Your task to perform on an android device: Open internet settings Image 0: 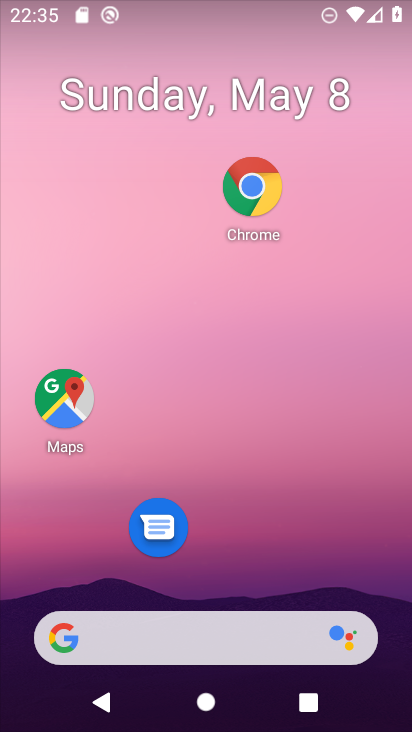
Step 0: click (346, 229)
Your task to perform on an android device: Open internet settings Image 1: 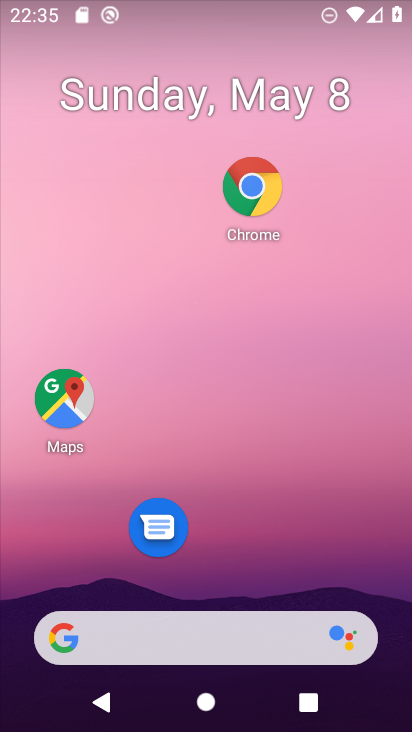
Step 1: drag from (238, 535) to (304, 206)
Your task to perform on an android device: Open internet settings Image 2: 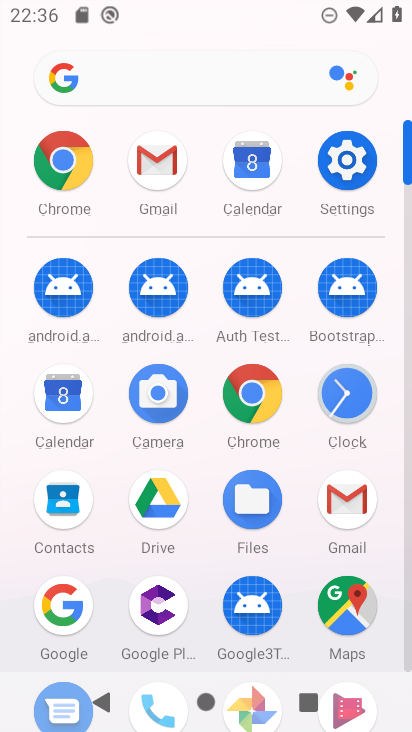
Step 2: click (338, 152)
Your task to perform on an android device: Open internet settings Image 3: 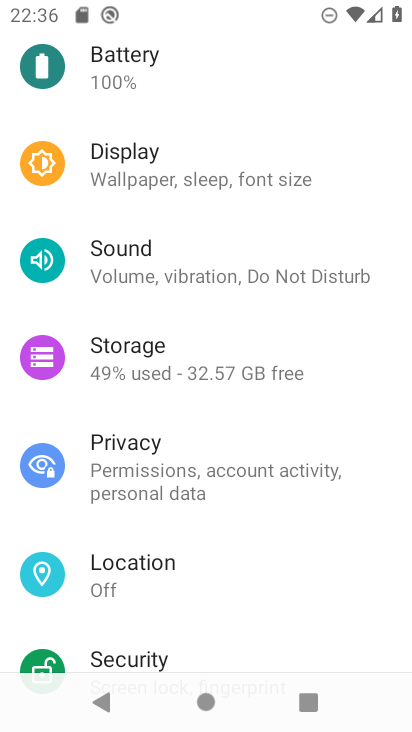
Step 3: drag from (203, 84) to (138, 620)
Your task to perform on an android device: Open internet settings Image 4: 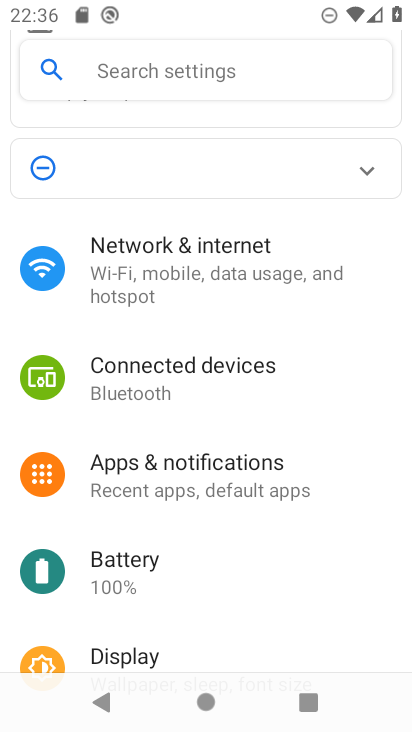
Step 4: click (210, 258)
Your task to perform on an android device: Open internet settings Image 5: 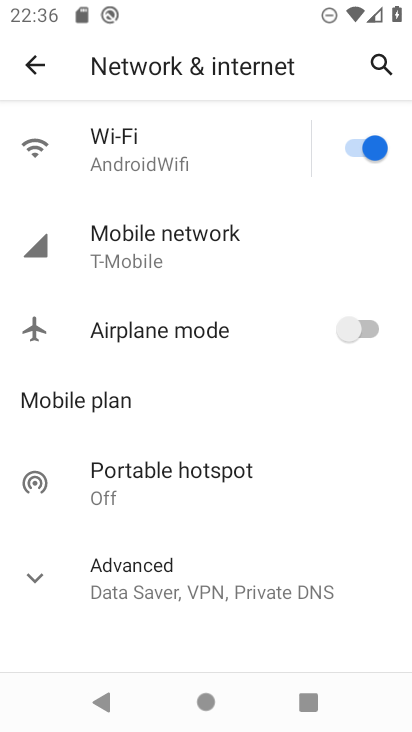
Step 5: task complete